Your task to perform on an android device: Search for seafood restaurants on Google Maps Image 0: 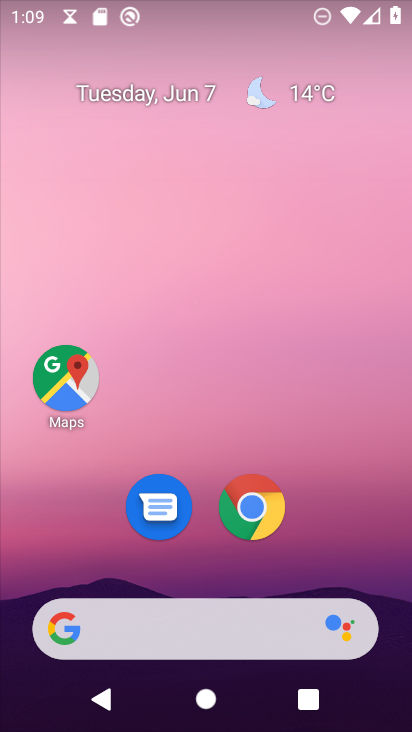
Step 0: click (261, 97)
Your task to perform on an android device: Search for seafood restaurants on Google Maps Image 1: 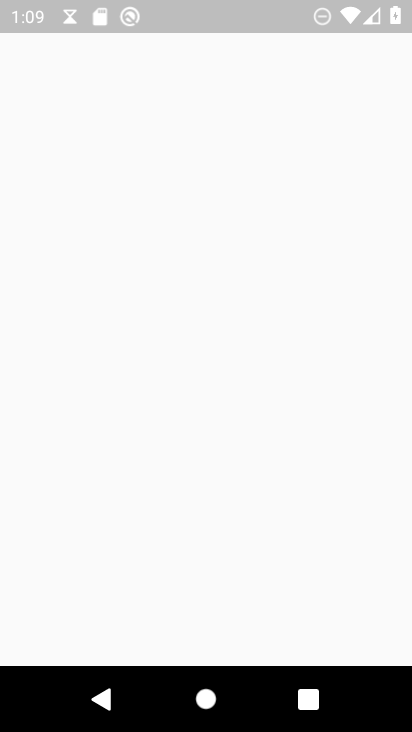
Step 1: press home button
Your task to perform on an android device: Search for seafood restaurants on Google Maps Image 2: 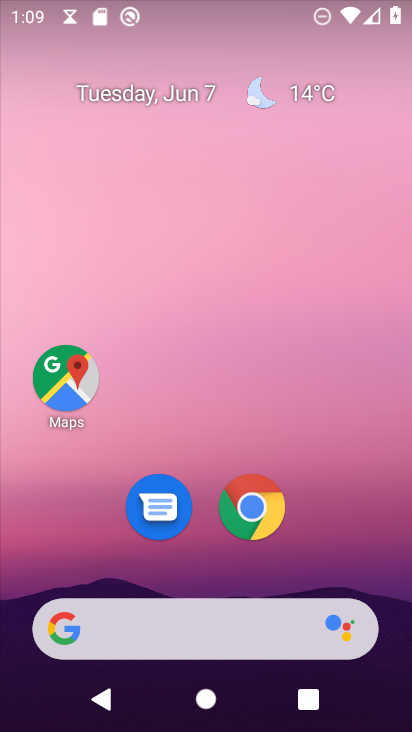
Step 2: click (63, 372)
Your task to perform on an android device: Search for seafood restaurants on Google Maps Image 3: 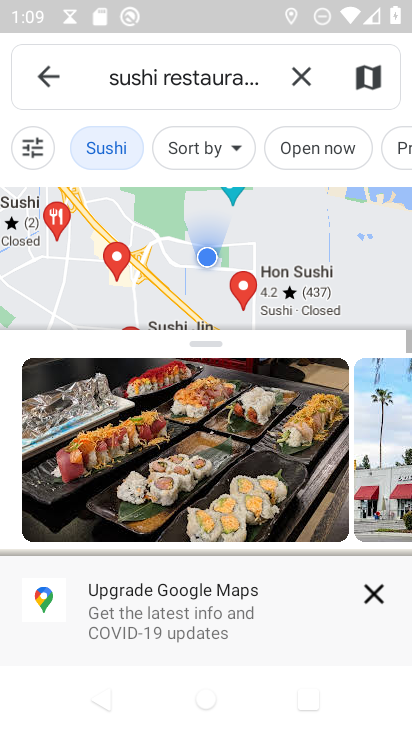
Step 3: click (302, 74)
Your task to perform on an android device: Search for seafood restaurants on Google Maps Image 4: 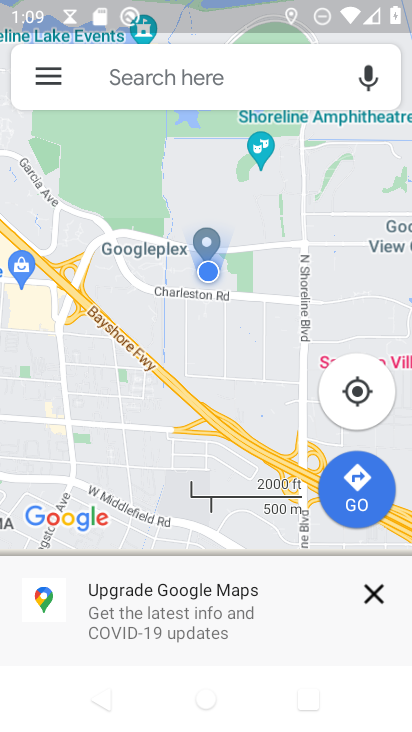
Step 4: click (237, 78)
Your task to perform on an android device: Search for seafood restaurants on Google Maps Image 5: 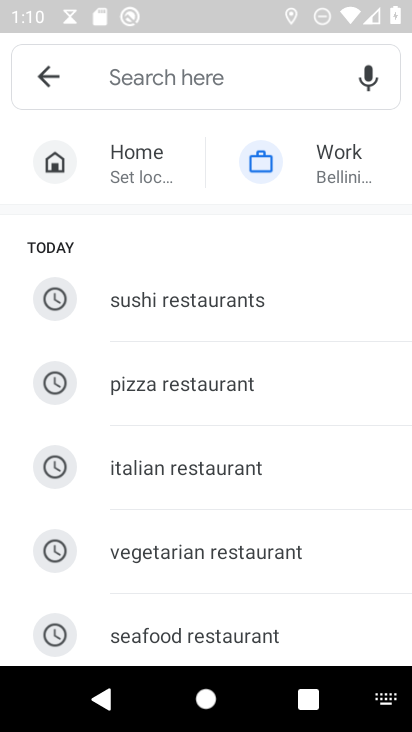
Step 5: type "seafood restaurants"
Your task to perform on an android device: Search for seafood restaurants on Google Maps Image 6: 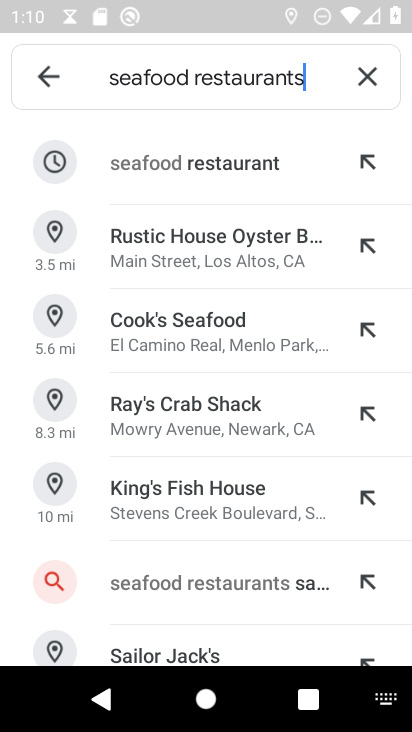
Step 6: click (213, 169)
Your task to perform on an android device: Search for seafood restaurants on Google Maps Image 7: 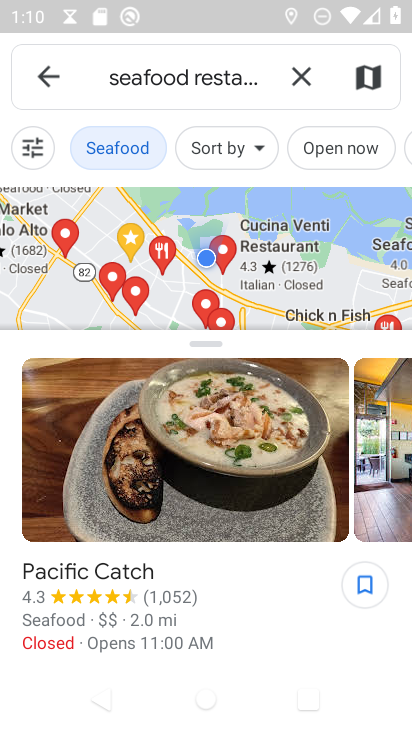
Step 7: task complete